Your task to perform on an android device: Open calendar and show me the third week of next month Image 0: 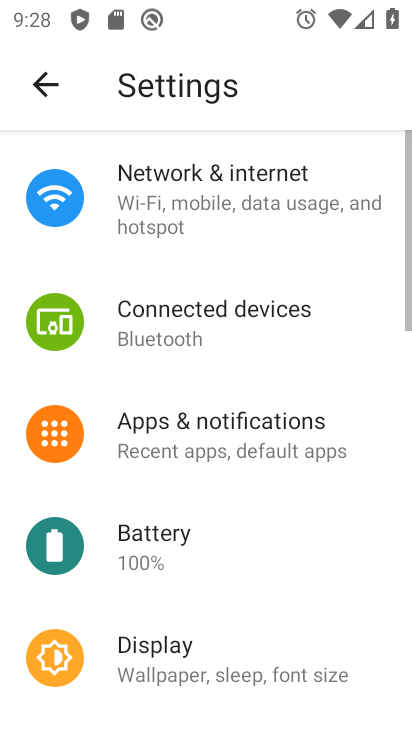
Step 0: press home button
Your task to perform on an android device: Open calendar and show me the third week of next month Image 1: 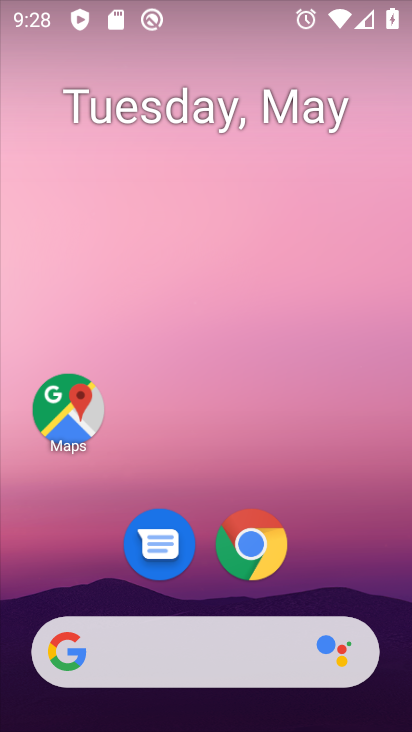
Step 1: drag from (363, 553) to (342, 135)
Your task to perform on an android device: Open calendar and show me the third week of next month Image 2: 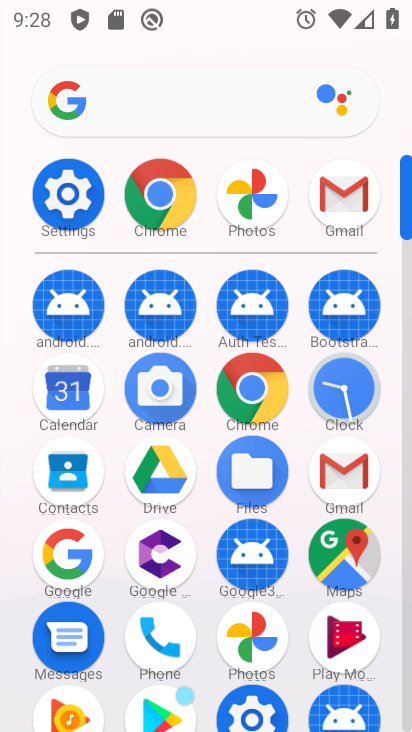
Step 2: click (79, 400)
Your task to perform on an android device: Open calendar and show me the third week of next month Image 3: 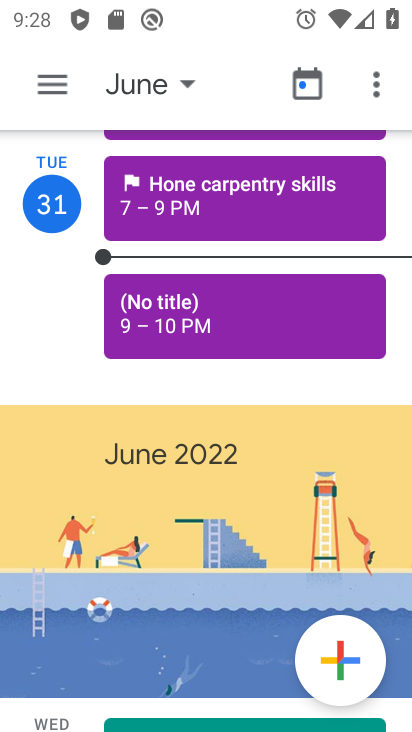
Step 3: click (158, 107)
Your task to perform on an android device: Open calendar and show me the third week of next month Image 4: 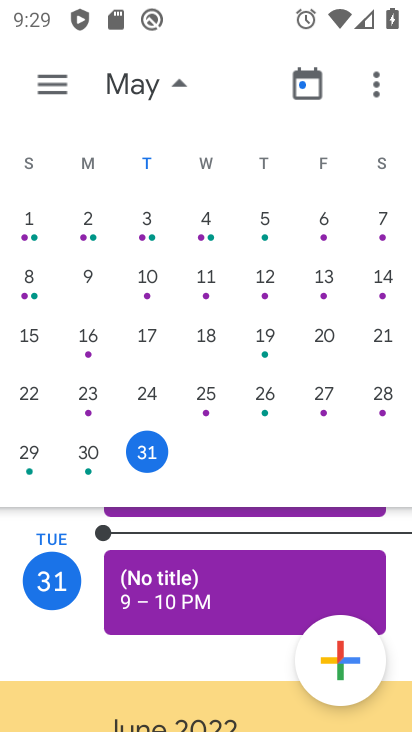
Step 4: drag from (321, 360) to (6, 321)
Your task to perform on an android device: Open calendar and show me the third week of next month Image 5: 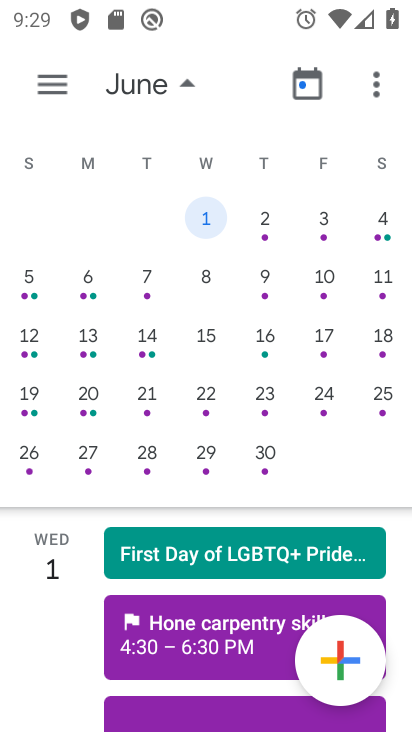
Step 5: click (32, 329)
Your task to perform on an android device: Open calendar and show me the third week of next month Image 6: 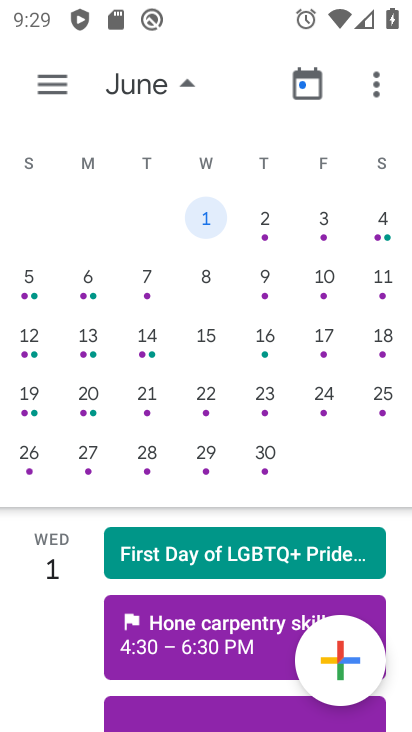
Step 6: click (45, 339)
Your task to perform on an android device: Open calendar and show me the third week of next month Image 7: 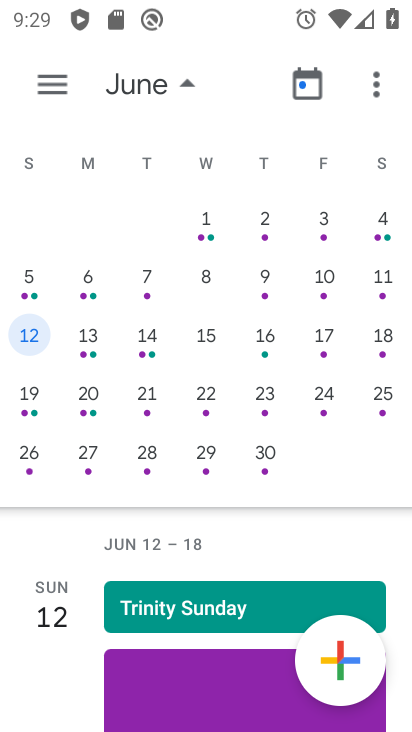
Step 7: task complete